Your task to perform on an android device: Go to settings Image 0: 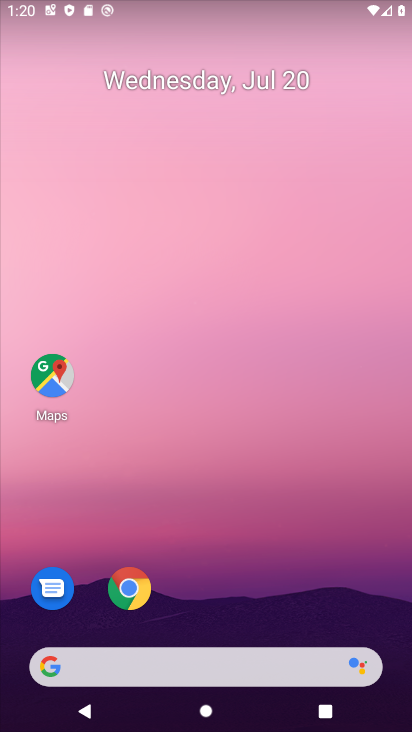
Step 0: drag from (271, 433) to (192, 91)
Your task to perform on an android device: Go to settings Image 1: 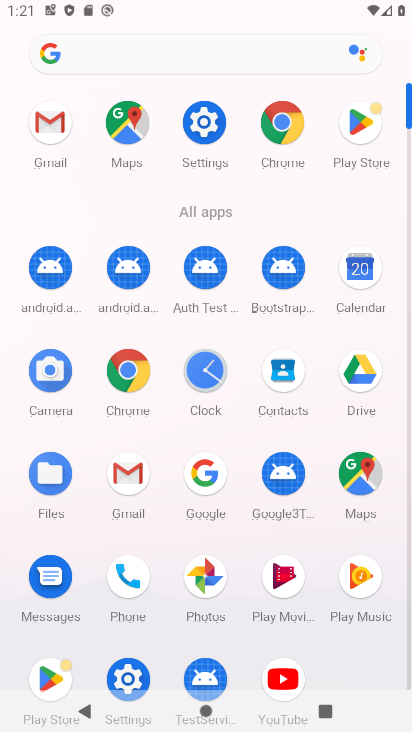
Step 1: click (120, 680)
Your task to perform on an android device: Go to settings Image 2: 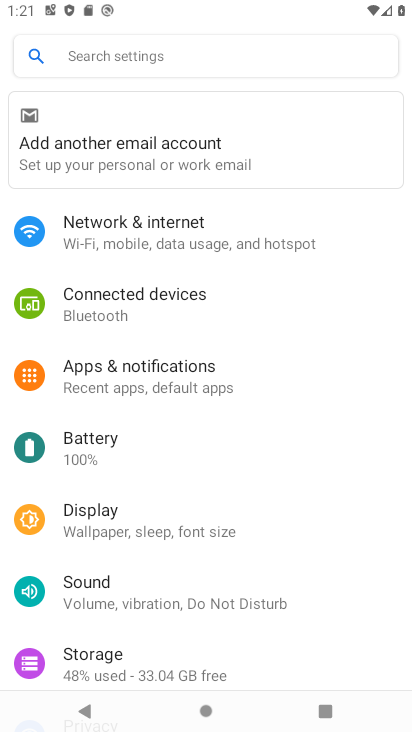
Step 2: press home button
Your task to perform on an android device: Go to settings Image 3: 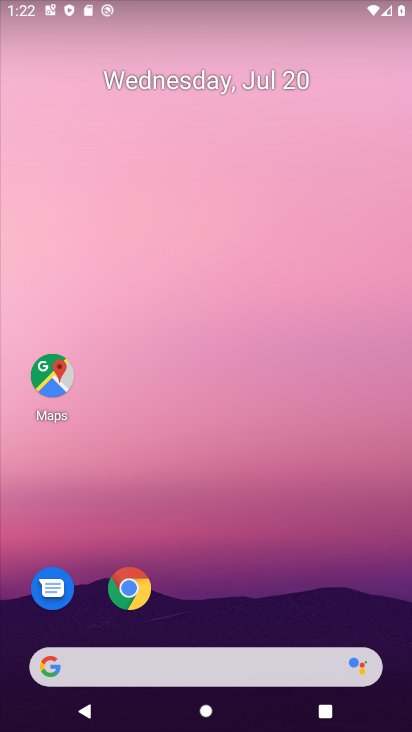
Step 3: drag from (297, 449) to (238, 80)
Your task to perform on an android device: Go to settings Image 4: 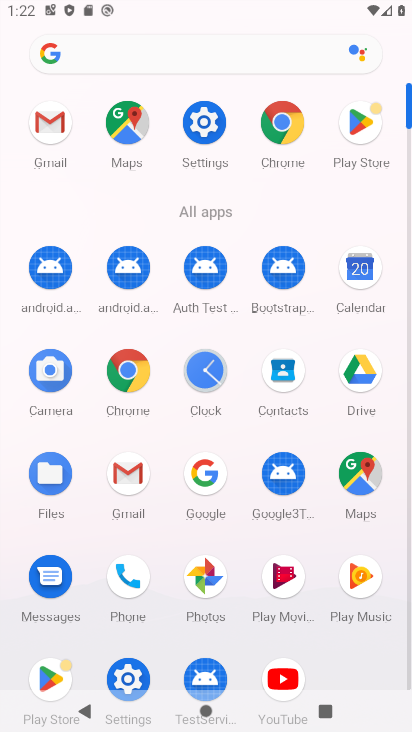
Step 4: click (128, 664)
Your task to perform on an android device: Go to settings Image 5: 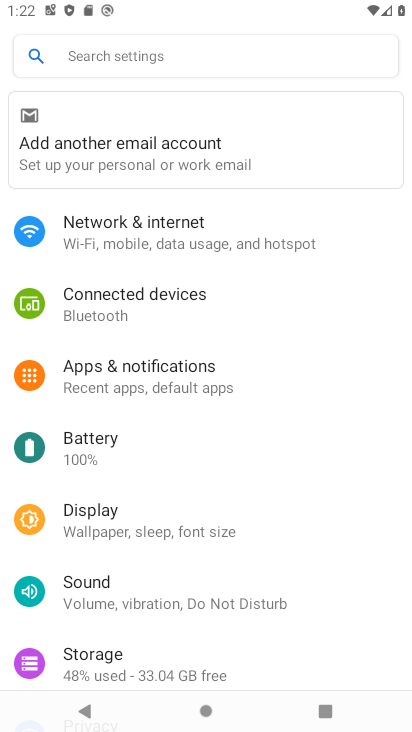
Step 5: task complete